Your task to perform on an android device: Go to Yahoo.com Image 0: 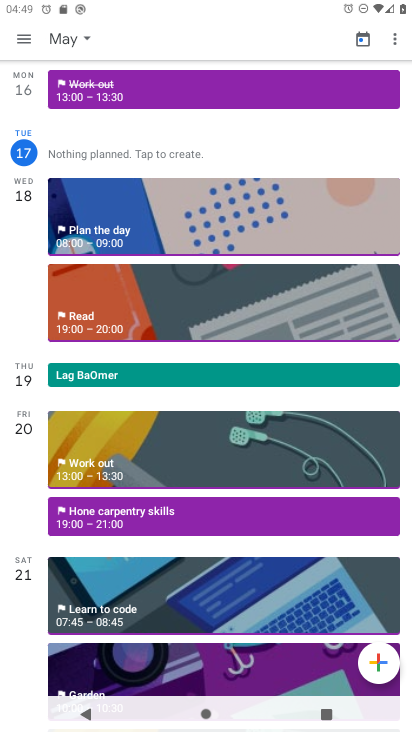
Step 0: press home button
Your task to perform on an android device: Go to Yahoo.com Image 1: 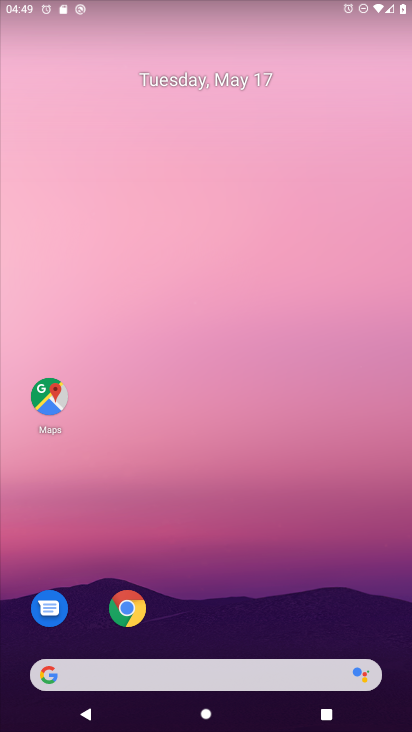
Step 1: drag from (212, 650) to (265, 230)
Your task to perform on an android device: Go to Yahoo.com Image 2: 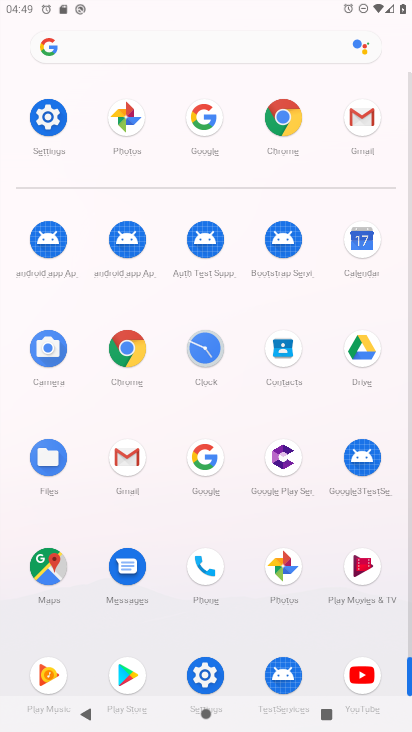
Step 2: click (129, 340)
Your task to perform on an android device: Go to Yahoo.com Image 3: 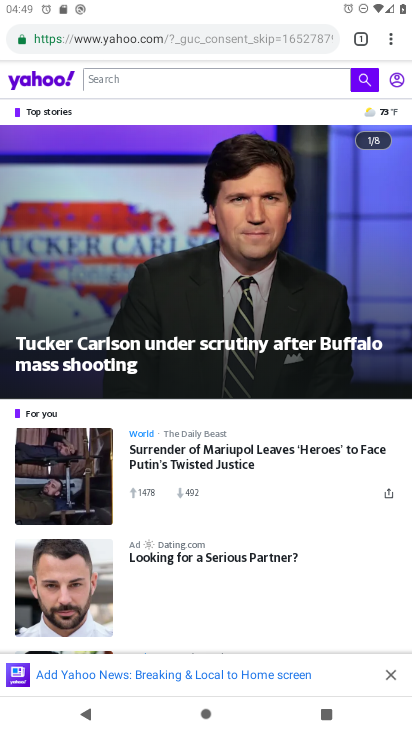
Step 3: task complete